Your task to perform on an android device: Show me popular games on the Play Store Image 0: 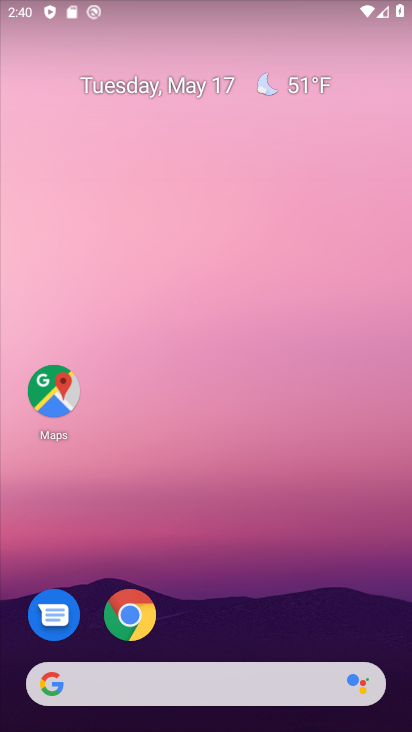
Step 0: drag from (208, 643) to (260, 117)
Your task to perform on an android device: Show me popular games on the Play Store Image 1: 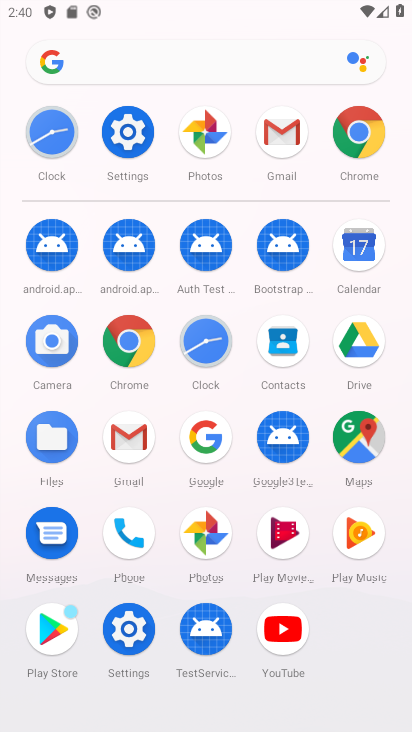
Step 1: click (51, 624)
Your task to perform on an android device: Show me popular games on the Play Store Image 2: 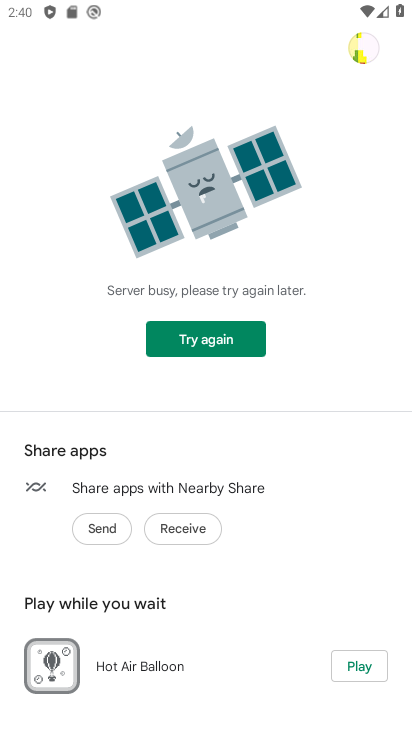
Step 2: click (210, 347)
Your task to perform on an android device: Show me popular games on the Play Store Image 3: 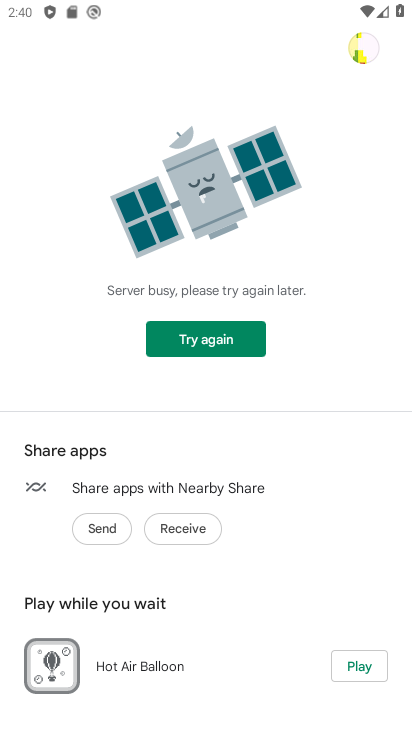
Step 3: click (210, 339)
Your task to perform on an android device: Show me popular games on the Play Store Image 4: 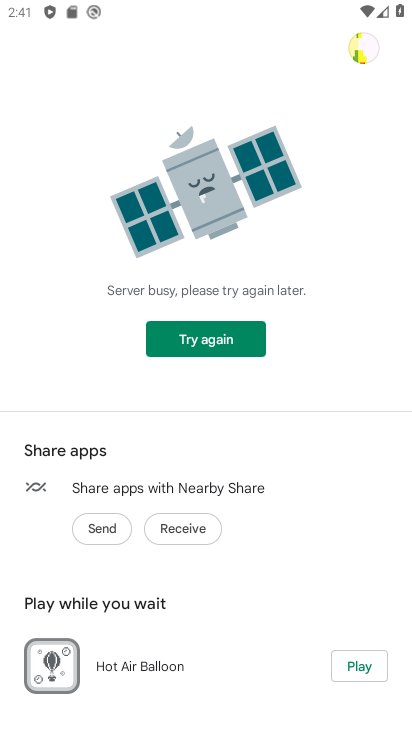
Step 4: click (208, 337)
Your task to perform on an android device: Show me popular games on the Play Store Image 5: 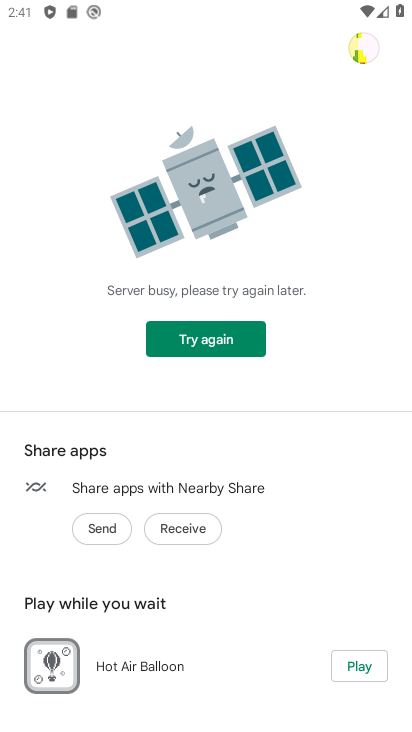
Step 5: click (213, 336)
Your task to perform on an android device: Show me popular games on the Play Store Image 6: 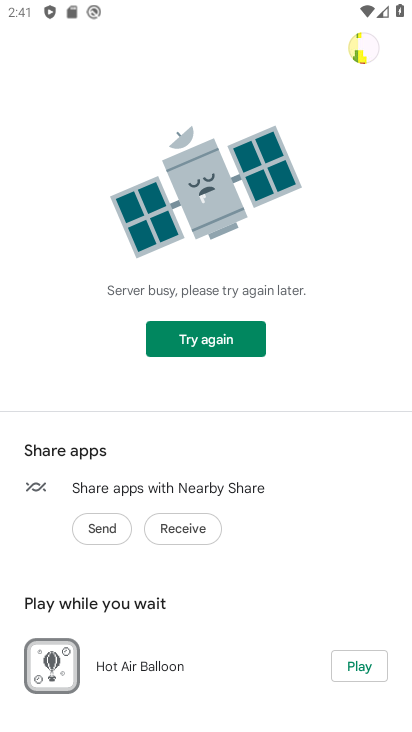
Step 6: click (206, 338)
Your task to perform on an android device: Show me popular games on the Play Store Image 7: 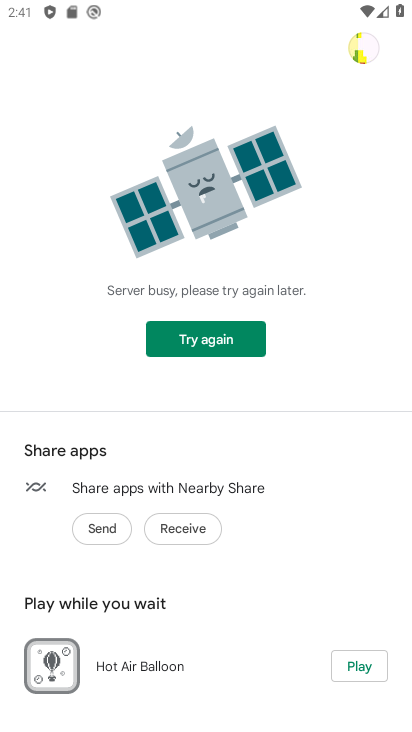
Step 7: task complete